Your task to perform on an android device: toggle translation in the chrome app Image 0: 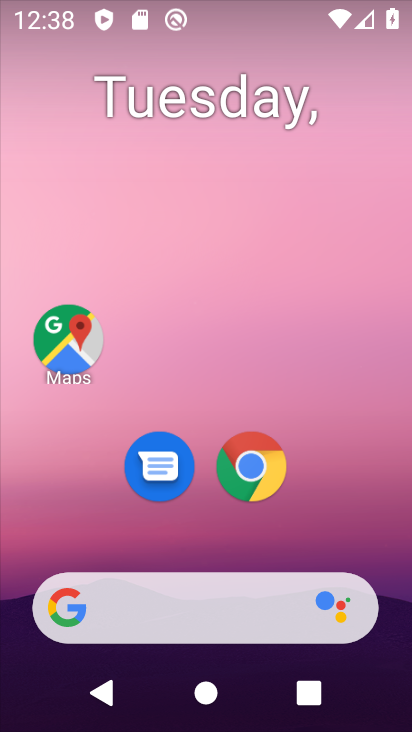
Step 0: click (234, 469)
Your task to perform on an android device: toggle translation in the chrome app Image 1: 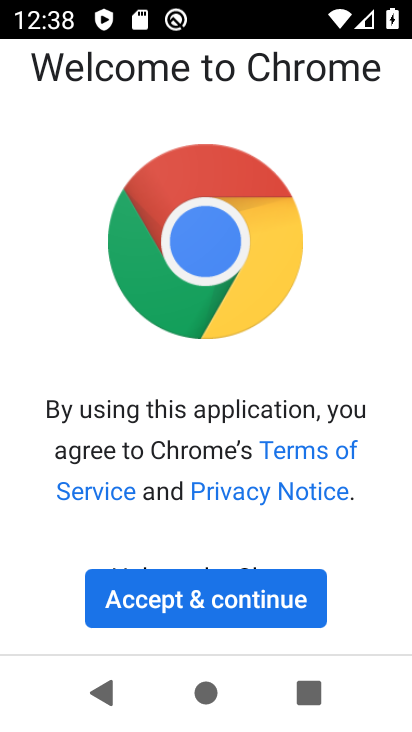
Step 1: click (202, 605)
Your task to perform on an android device: toggle translation in the chrome app Image 2: 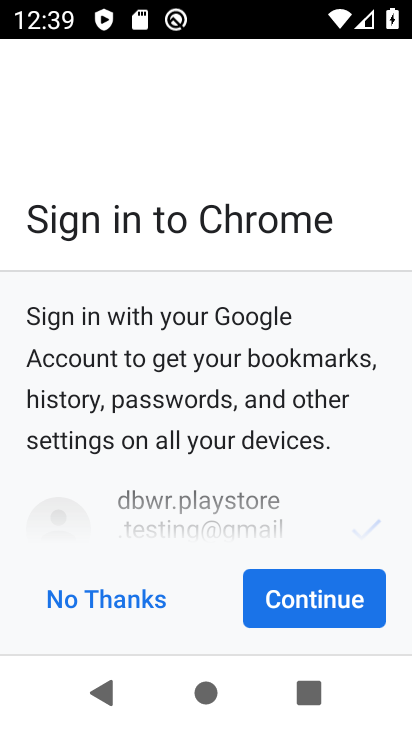
Step 2: click (352, 625)
Your task to perform on an android device: toggle translation in the chrome app Image 3: 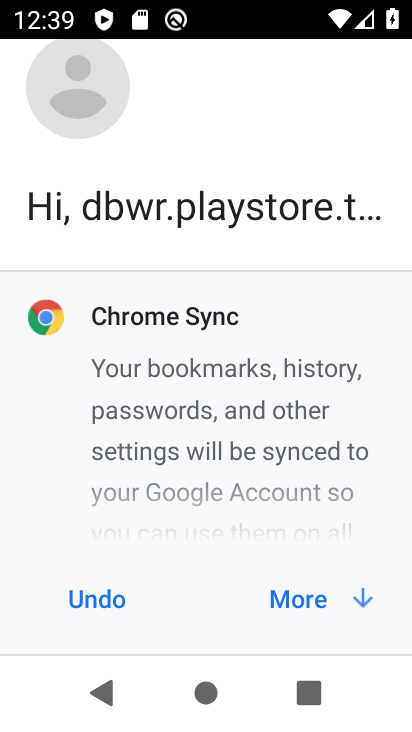
Step 3: task complete